Your task to perform on an android device: see sites visited before in the chrome app Image 0: 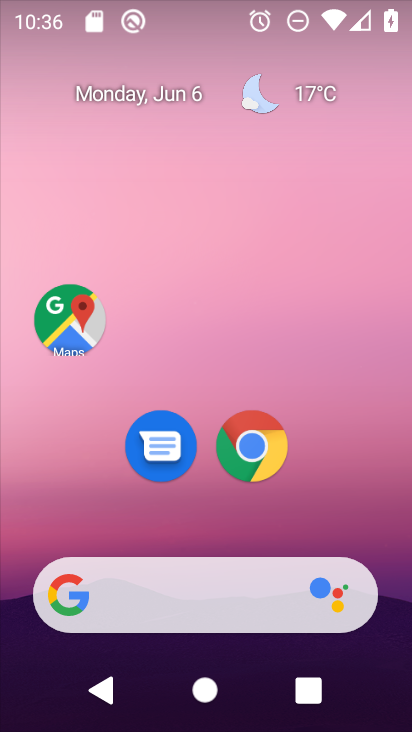
Step 0: click (267, 444)
Your task to perform on an android device: see sites visited before in the chrome app Image 1: 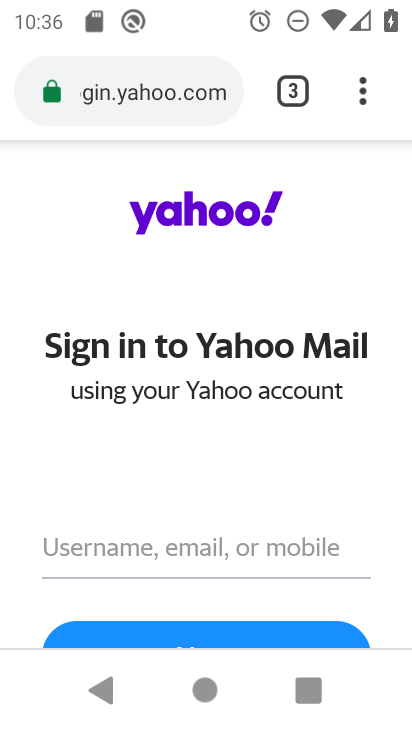
Step 1: click (369, 104)
Your task to perform on an android device: see sites visited before in the chrome app Image 2: 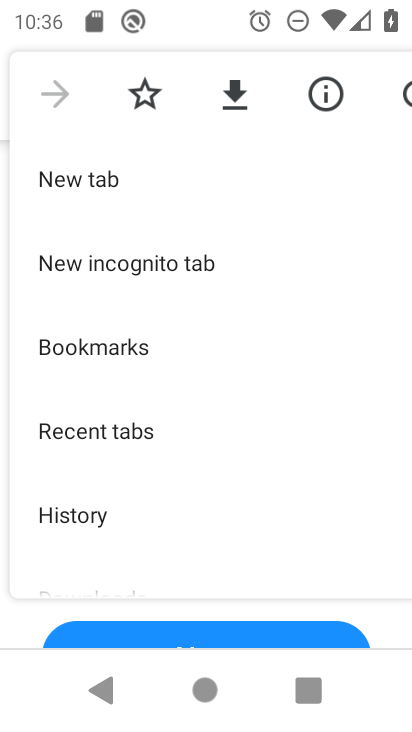
Step 2: click (124, 426)
Your task to perform on an android device: see sites visited before in the chrome app Image 3: 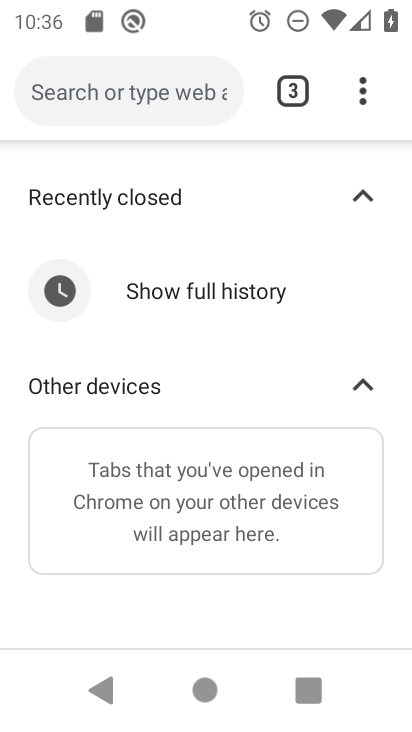
Step 3: task complete